Your task to perform on an android device: change text size in settings app Image 0: 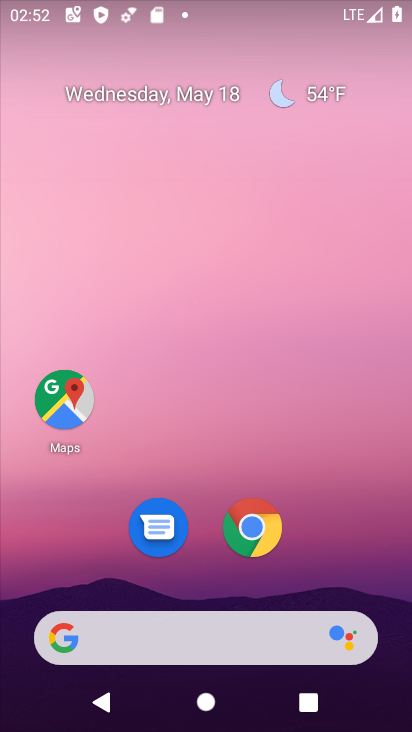
Step 0: drag from (227, 598) to (338, 9)
Your task to perform on an android device: change text size in settings app Image 1: 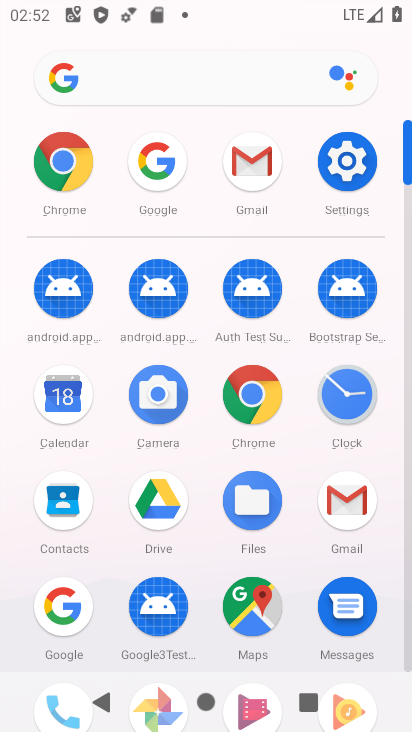
Step 1: click (356, 181)
Your task to perform on an android device: change text size in settings app Image 2: 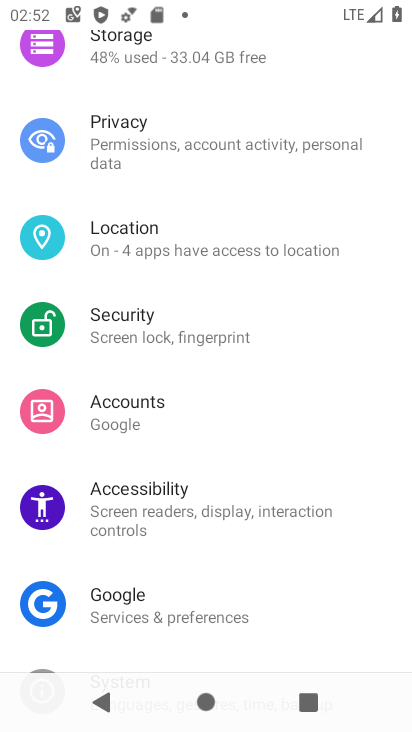
Step 2: drag from (131, 123) to (130, 586)
Your task to perform on an android device: change text size in settings app Image 3: 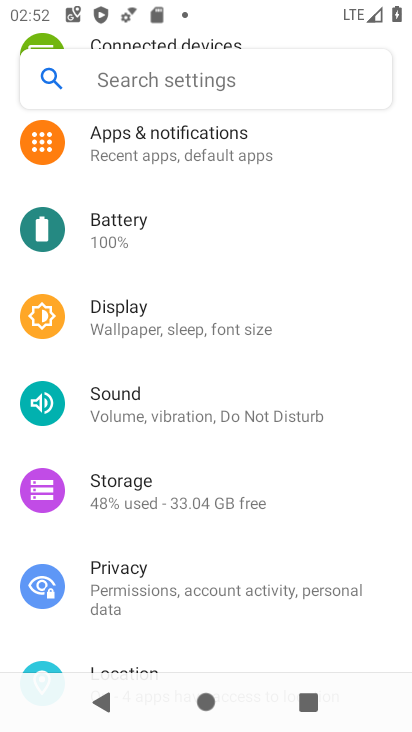
Step 3: click (110, 321)
Your task to perform on an android device: change text size in settings app Image 4: 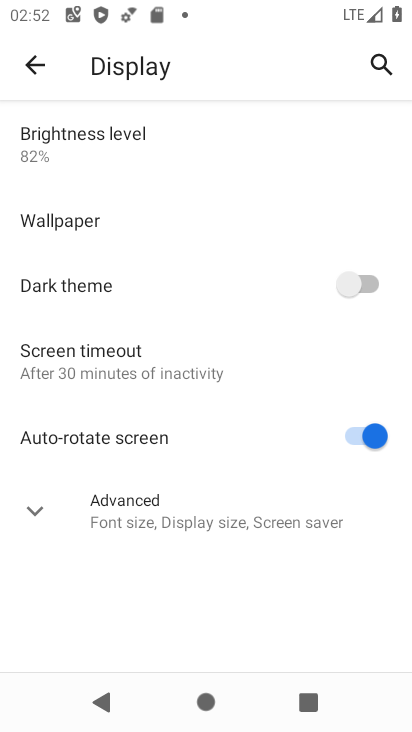
Step 4: click (197, 503)
Your task to perform on an android device: change text size in settings app Image 5: 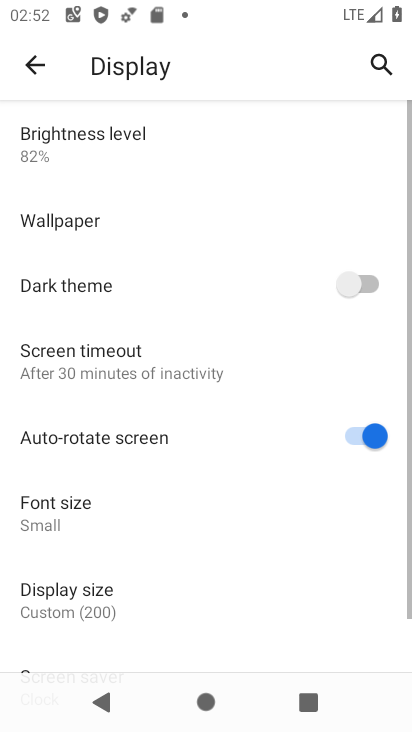
Step 5: drag from (185, 505) to (158, 156)
Your task to perform on an android device: change text size in settings app Image 6: 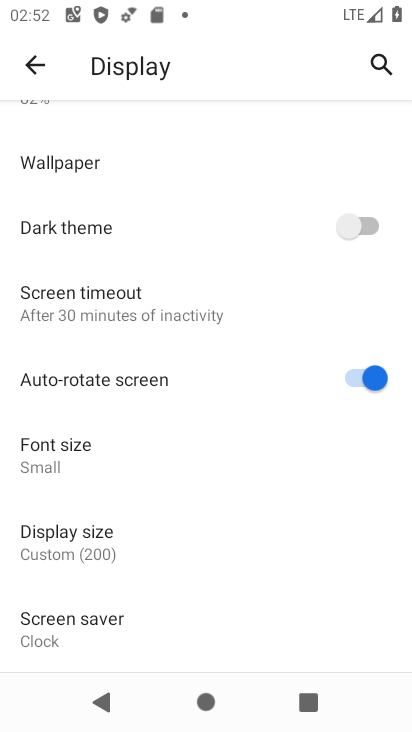
Step 6: click (72, 448)
Your task to perform on an android device: change text size in settings app Image 7: 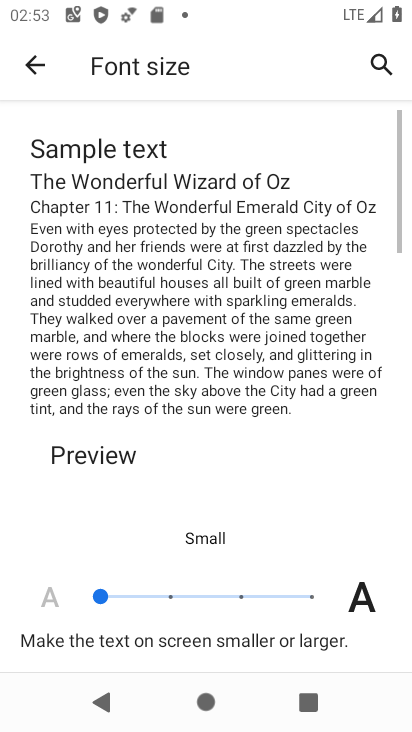
Step 7: click (170, 597)
Your task to perform on an android device: change text size in settings app Image 8: 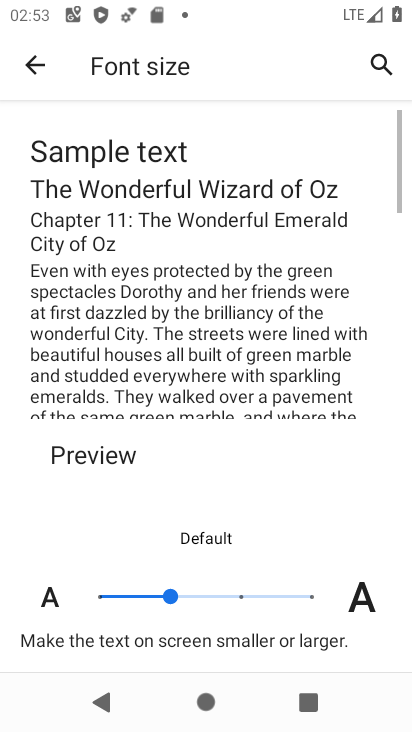
Step 8: task complete